Your task to perform on an android device: Open settings on Google Maps Image 0: 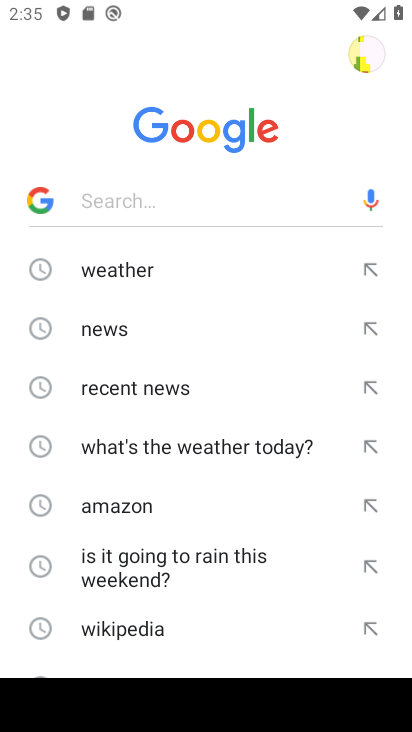
Step 0: press home button
Your task to perform on an android device: Open settings on Google Maps Image 1: 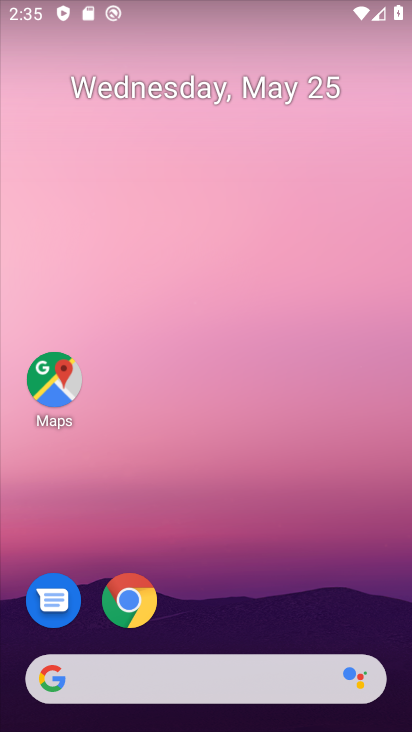
Step 1: click (56, 385)
Your task to perform on an android device: Open settings on Google Maps Image 2: 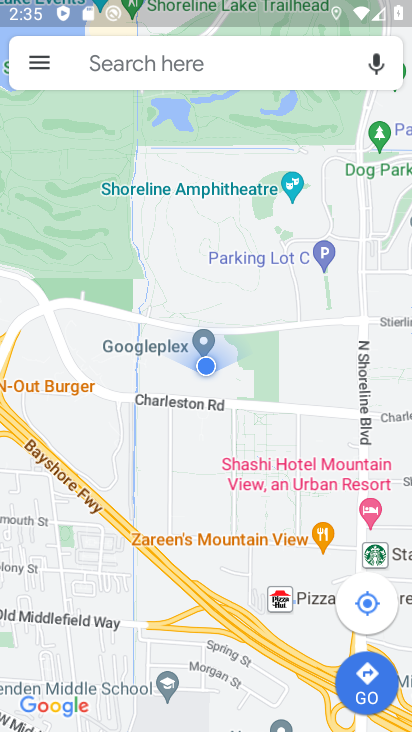
Step 2: task complete